Your task to perform on an android device: Toggle the flashlight Image 0: 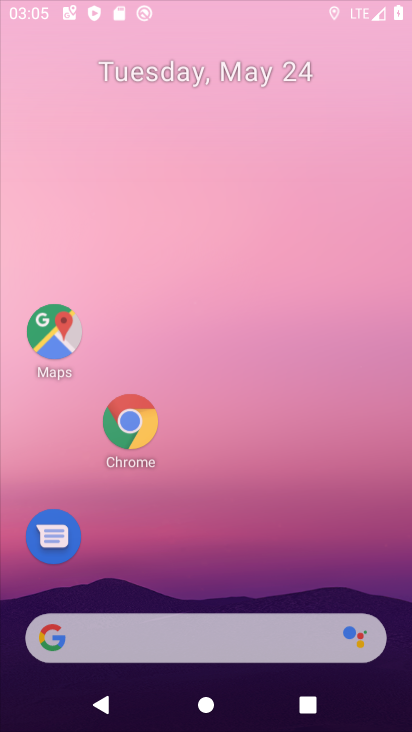
Step 0: click (241, 24)
Your task to perform on an android device: Toggle the flashlight Image 1: 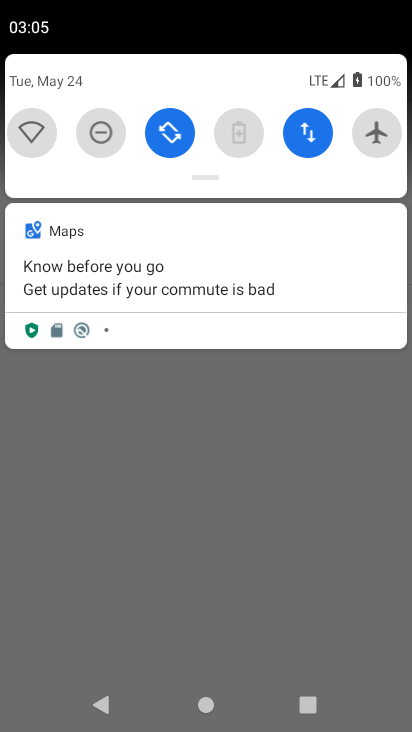
Step 1: drag from (235, 565) to (341, 144)
Your task to perform on an android device: Toggle the flashlight Image 2: 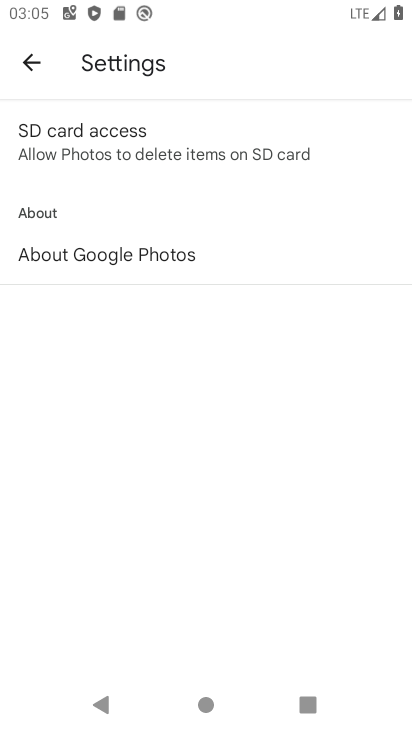
Step 2: press home button
Your task to perform on an android device: Toggle the flashlight Image 3: 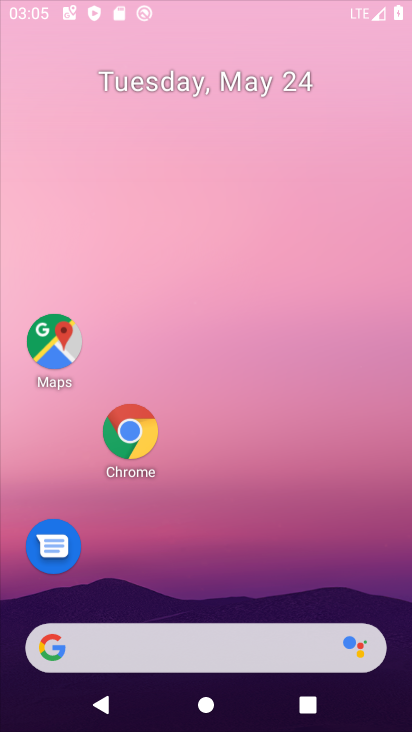
Step 3: drag from (233, 618) to (304, 3)
Your task to perform on an android device: Toggle the flashlight Image 4: 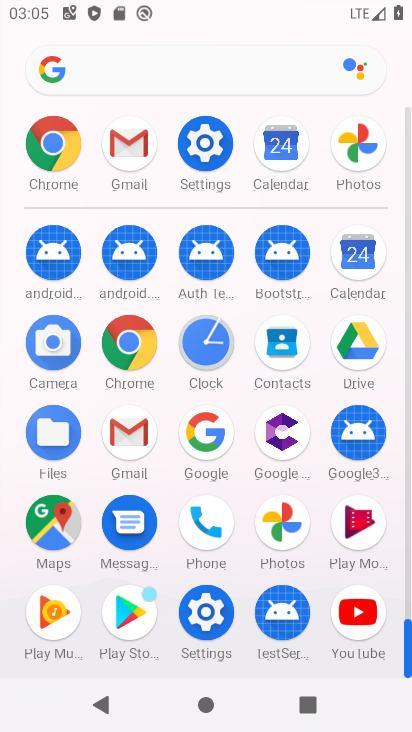
Step 4: click (212, 137)
Your task to perform on an android device: Toggle the flashlight Image 5: 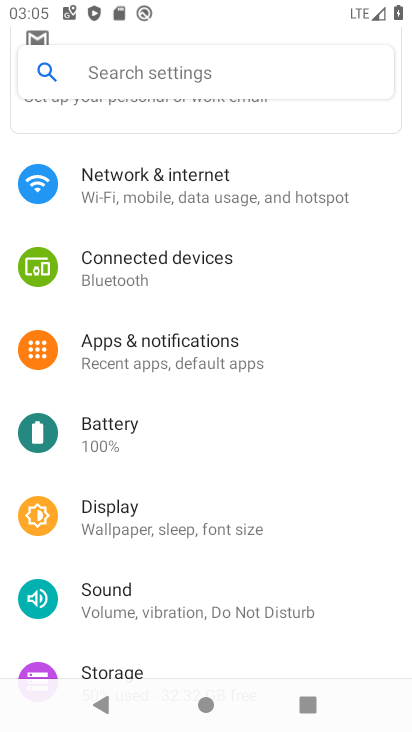
Step 5: click (175, 71)
Your task to perform on an android device: Toggle the flashlight Image 6: 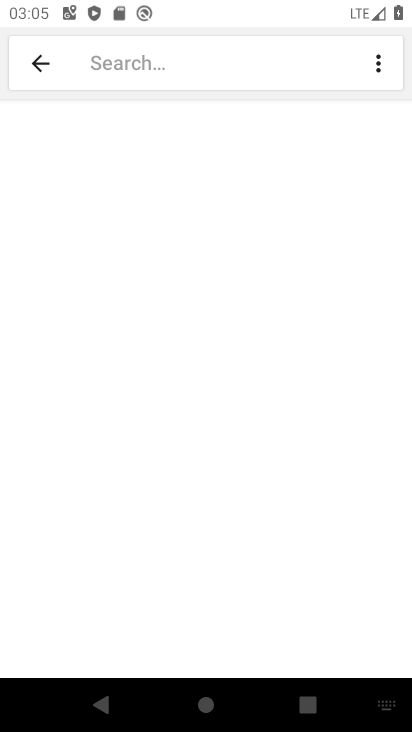
Step 6: type "flashliht"
Your task to perform on an android device: Toggle the flashlight Image 7: 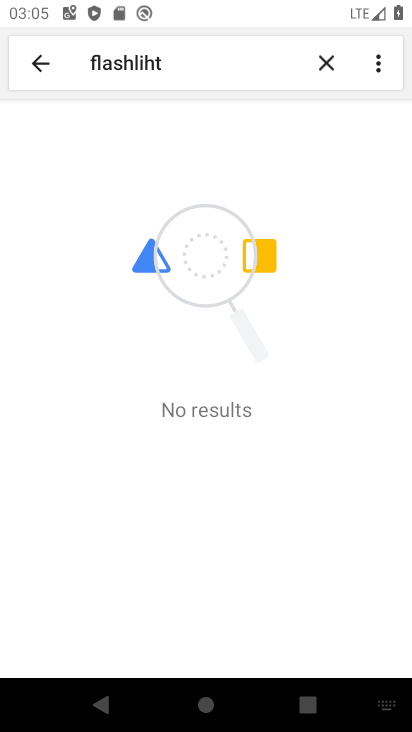
Step 7: click (239, 61)
Your task to perform on an android device: Toggle the flashlight Image 8: 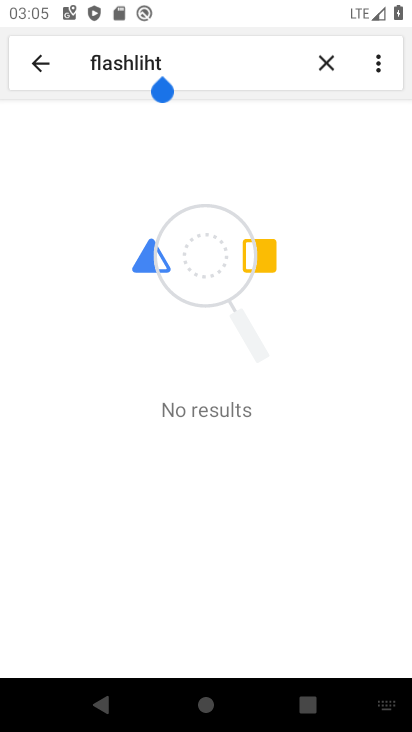
Step 8: click (320, 60)
Your task to perform on an android device: Toggle the flashlight Image 9: 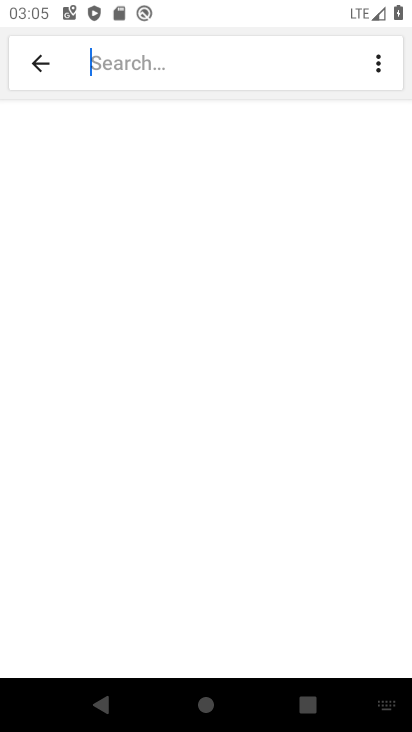
Step 9: type "flashlight"
Your task to perform on an android device: Toggle the flashlight Image 10: 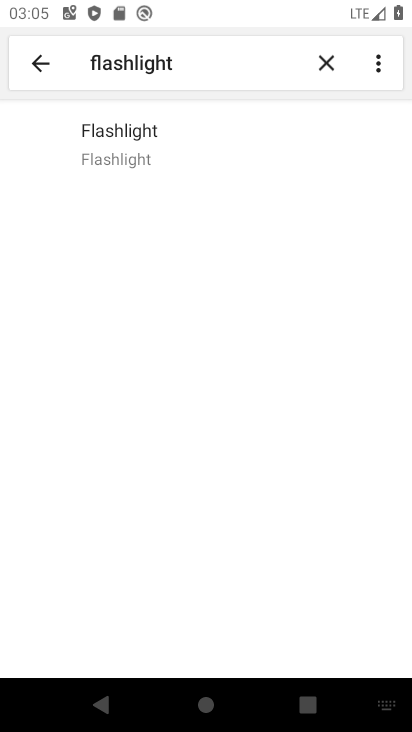
Step 10: click (222, 152)
Your task to perform on an android device: Toggle the flashlight Image 11: 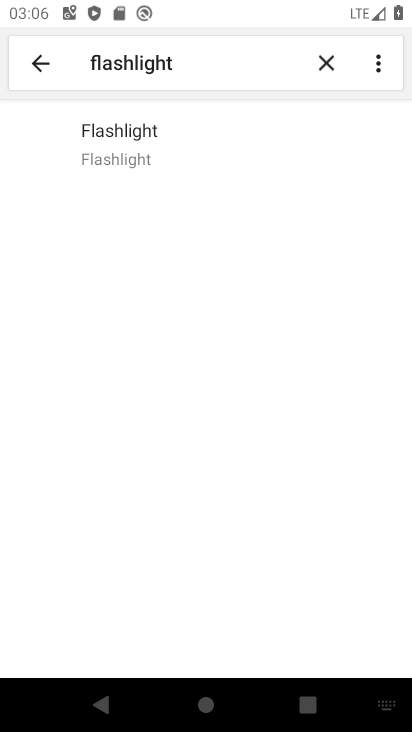
Step 11: task complete